Your task to perform on an android device: show emergency info Image 0: 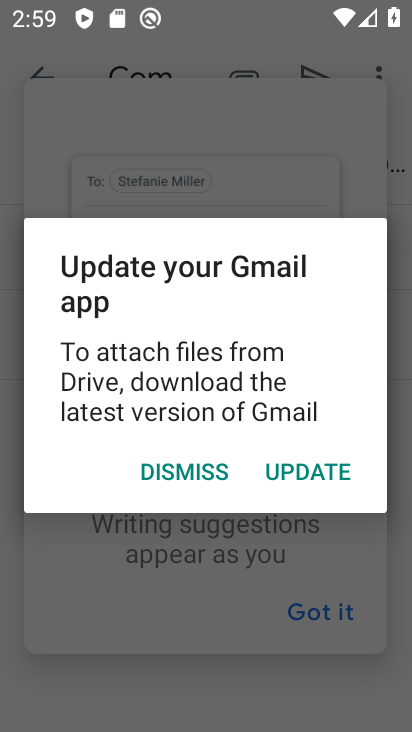
Step 0: press home button
Your task to perform on an android device: show emergency info Image 1: 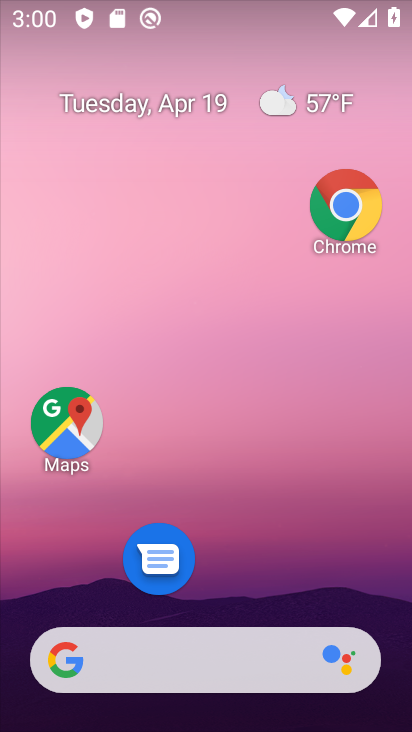
Step 1: drag from (224, 586) to (301, 146)
Your task to perform on an android device: show emergency info Image 2: 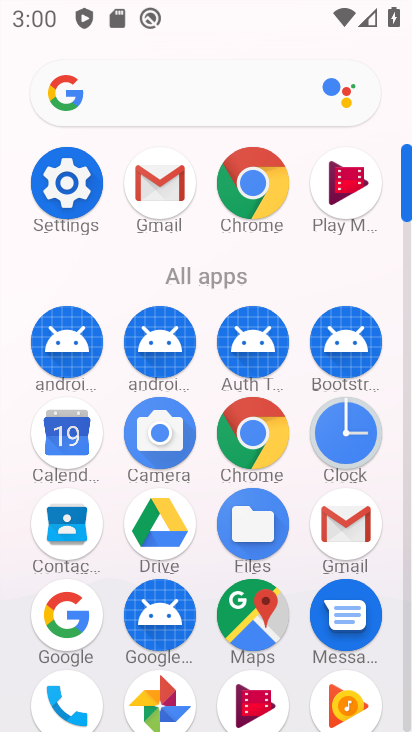
Step 2: drag from (198, 642) to (276, 376)
Your task to perform on an android device: show emergency info Image 3: 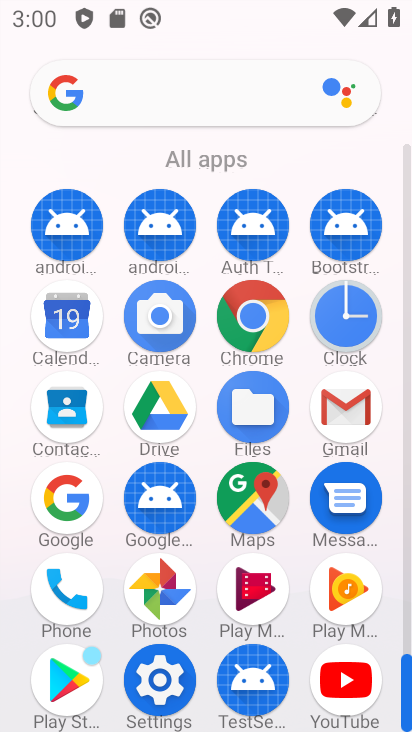
Step 3: click (151, 666)
Your task to perform on an android device: show emergency info Image 4: 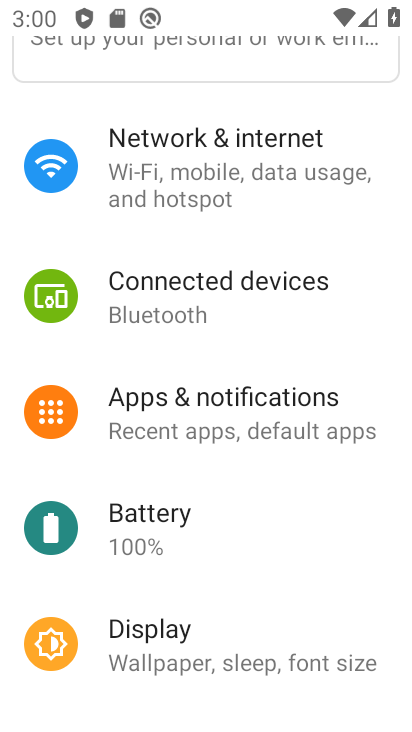
Step 4: drag from (196, 591) to (223, 209)
Your task to perform on an android device: show emergency info Image 5: 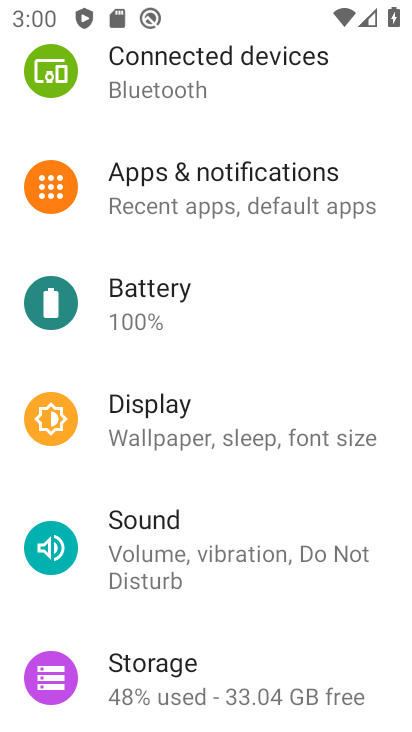
Step 5: drag from (190, 597) to (244, 250)
Your task to perform on an android device: show emergency info Image 6: 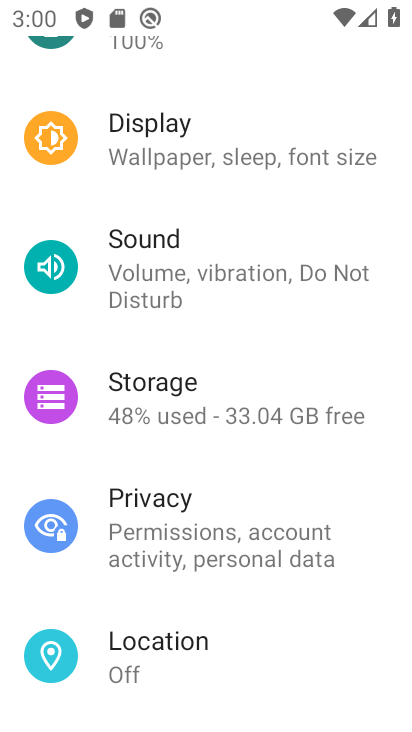
Step 6: drag from (241, 671) to (269, 266)
Your task to perform on an android device: show emergency info Image 7: 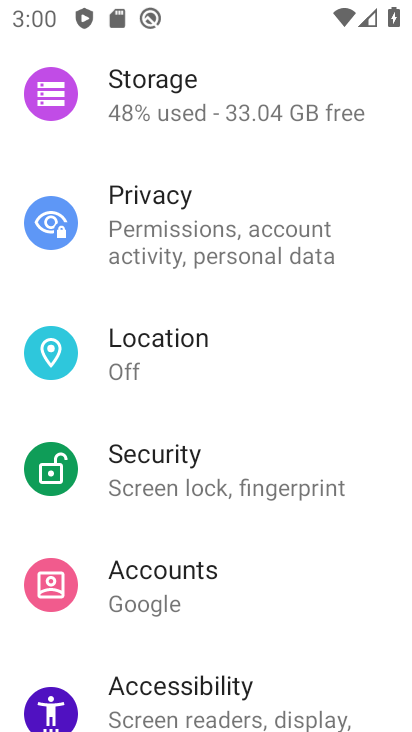
Step 7: drag from (185, 634) to (239, 290)
Your task to perform on an android device: show emergency info Image 8: 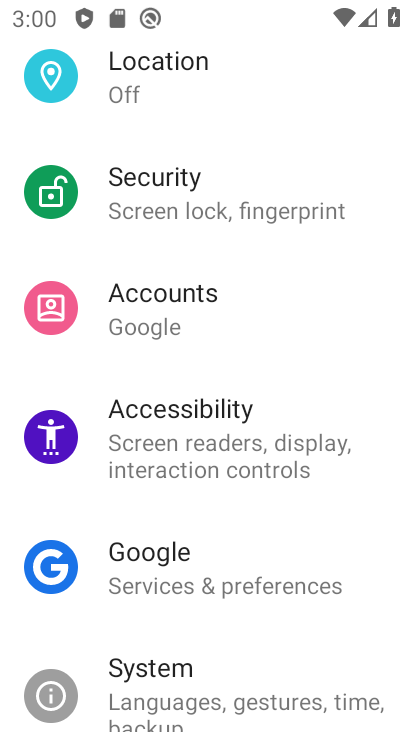
Step 8: drag from (157, 641) to (175, 348)
Your task to perform on an android device: show emergency info Image 9: 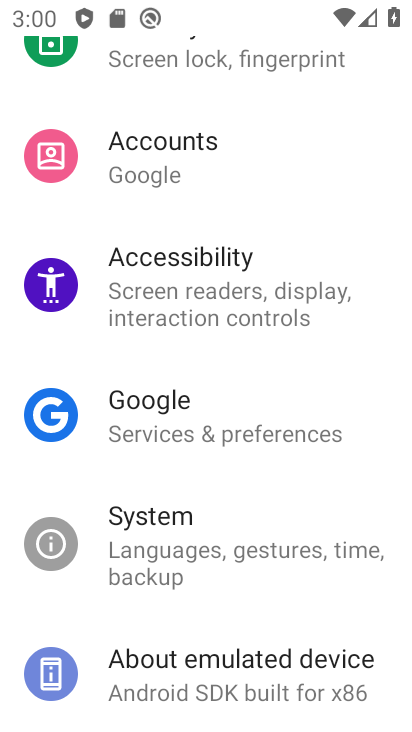
Step 9: click (191, 676)
Your task to perform on an android device: show emergency info Image 10: 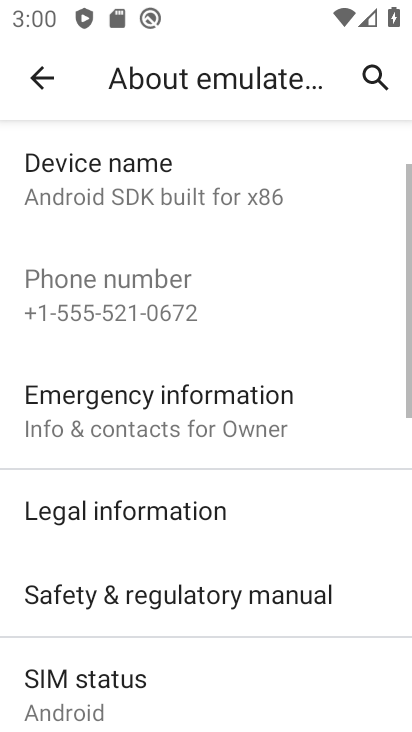
Step 10: drag from (220, 654) to (246, 199)
Your task to perform on an android device: show emergency info Image 11: 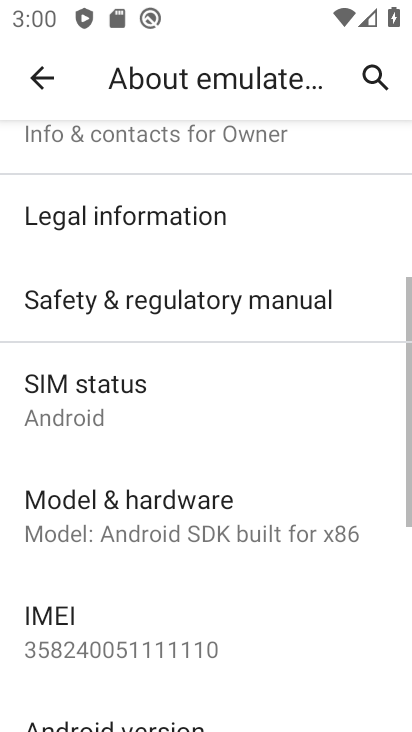
Step 11: drag from (210, 536) to (249, 214)
Your task to perform on an android device: show emergency info Image 12: 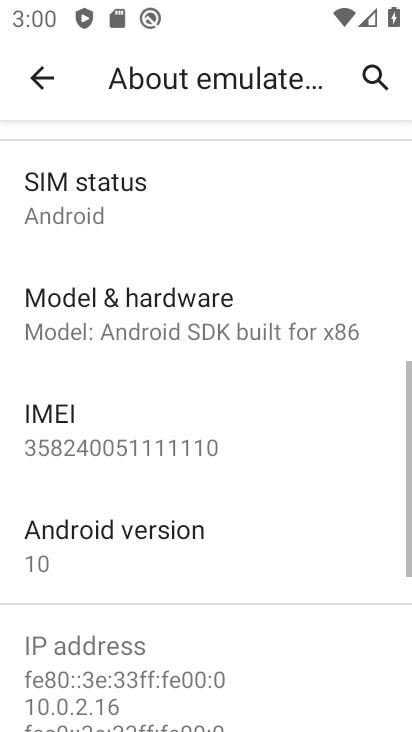
Step 12: drag from (182, 616) to (219, 276)
Your task to perform on an android device: show emergency info Image 13: 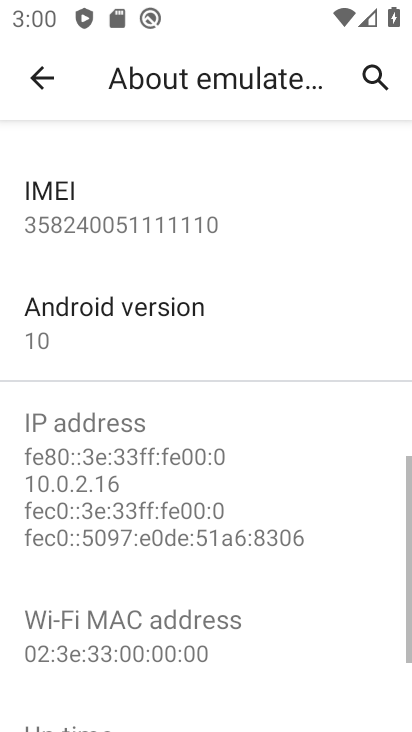
Step 13: drag from (217, 606) to (238, 342)
Your task to perform on an android device: show emergency info Image 14: 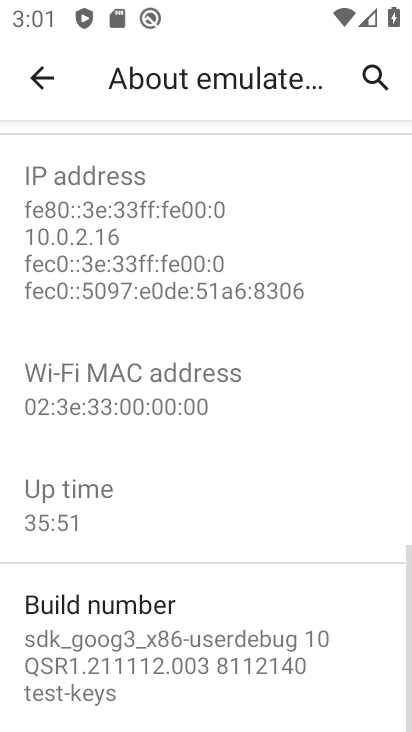
Step 14: drag from (189, 631) to (186, 433)
Your task to perform on an android device: show emergency info Image 15: 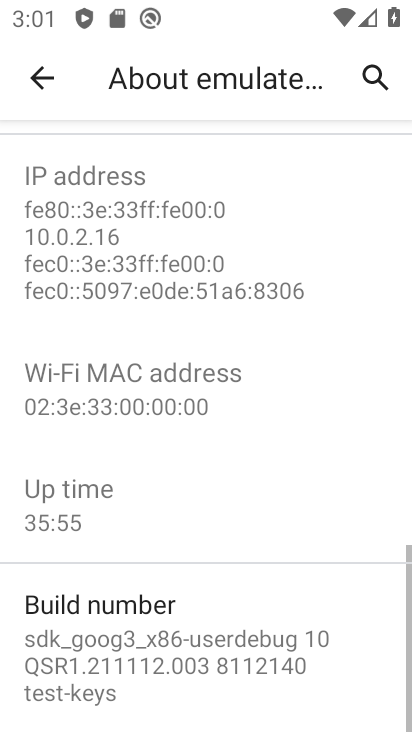
Step 15: drag from (177, 286) to (218, 613)
Your task to perform on an android device: show emergency info Image 16: 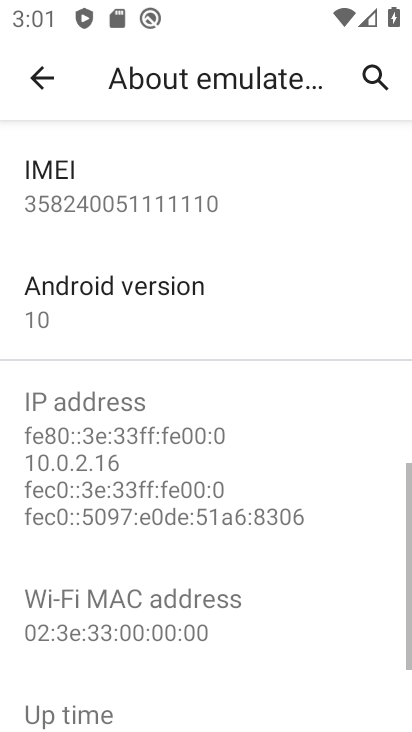
Step 16: drag from (177, 251) to (172, 600)
Your task to perform on an android device: show emergency info Image 17: 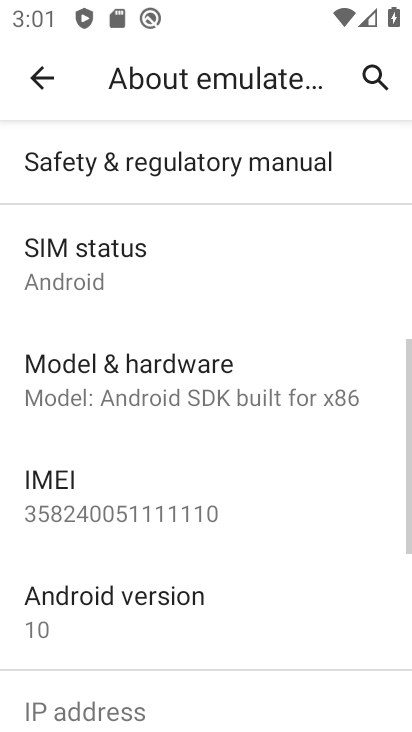
Step 17: drag from (117, 250) to (166, 557)
Your task to perform on an android device: show emergency info Image 18: 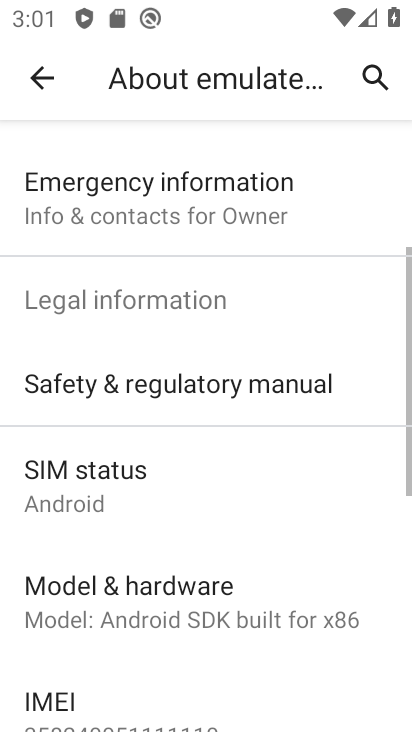
Step 18: drag from (163, 389) to (163, 526)
Your task to perform on an android device: show emergency info Image 19: 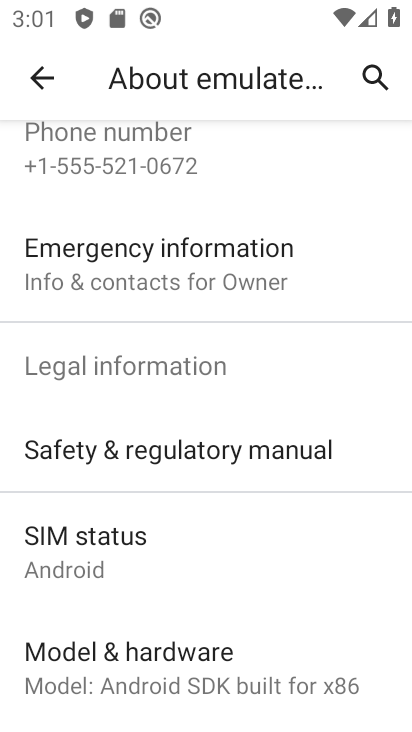
Step 19: drag from (130, 189) to (163, 581)
Your task to perform on an android device: show emergency info Image 20: 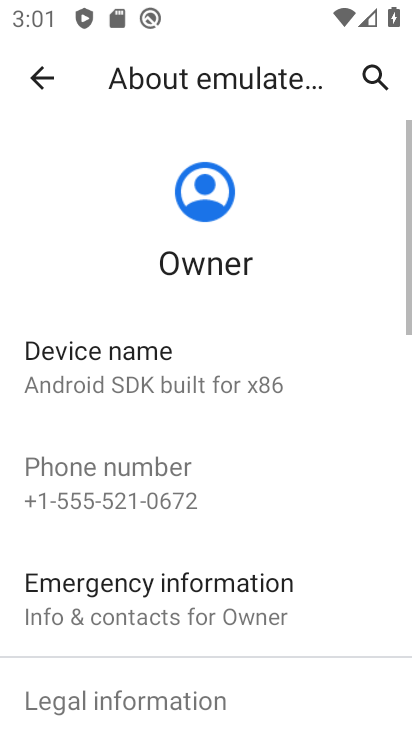
Step 20: drag from (137, 290) to (149, 509)
Your task to perform on an android device: show emergency info Image 21: 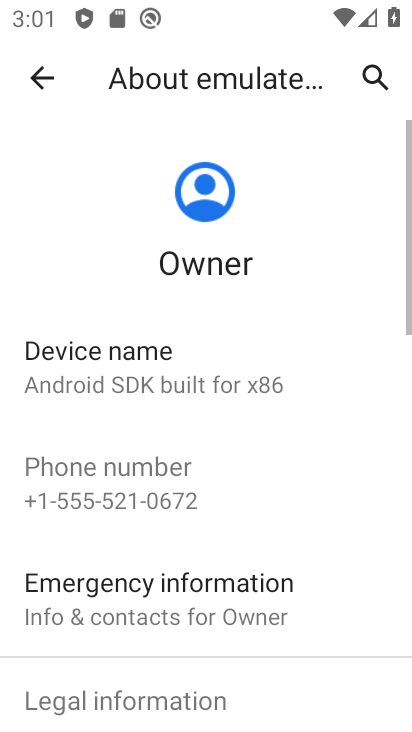
Step 21: click (138, 593)
Your task to perform on an android device: show emergency info Image 22: 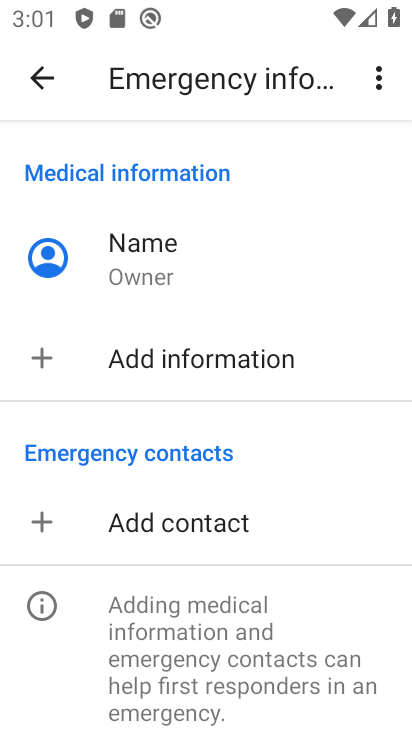
Step 22: task complete